Your task to perform on an android device: open app "Upside-Cash back on gas & food" Image 0: 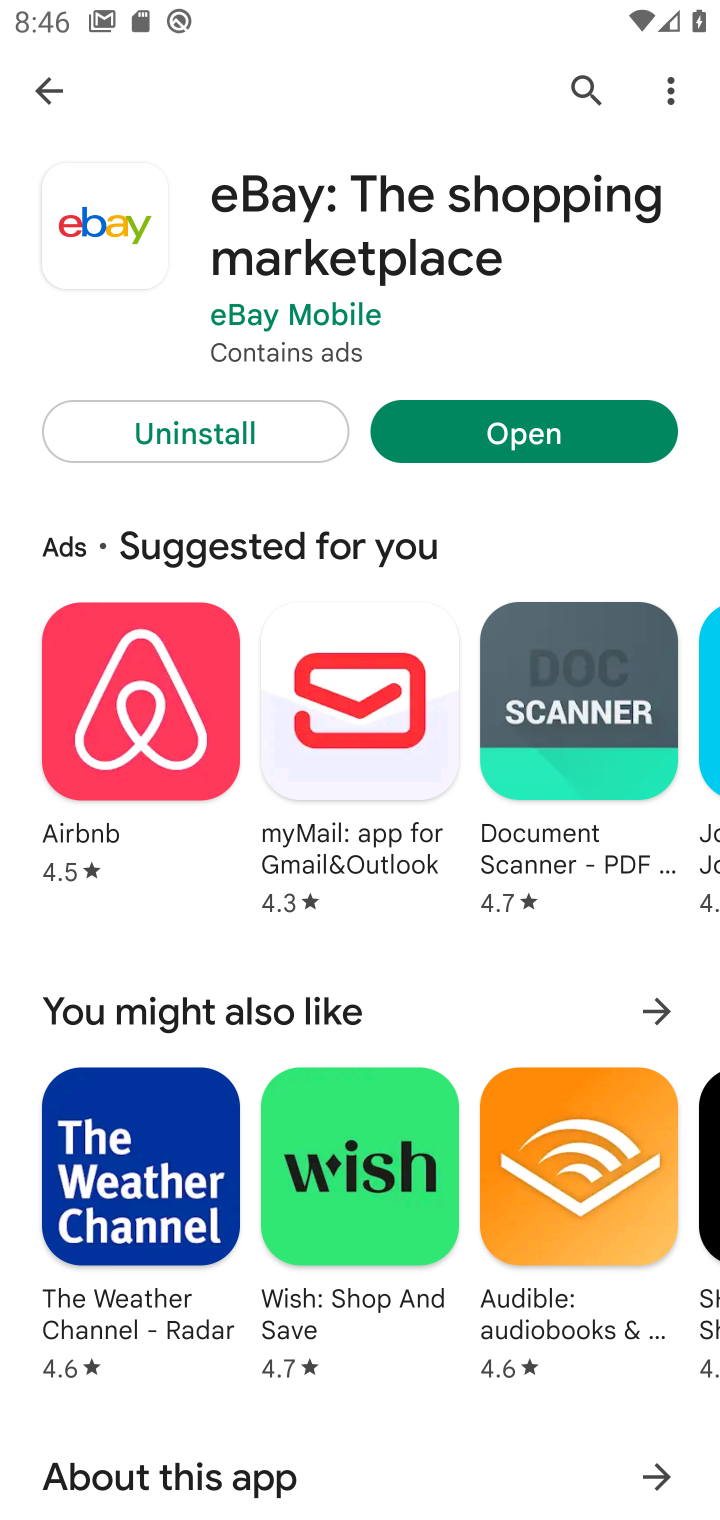
Step 0: press home button
Your task to perform on an android device: open app "Upside-Cash back on gas & food" Image 1: 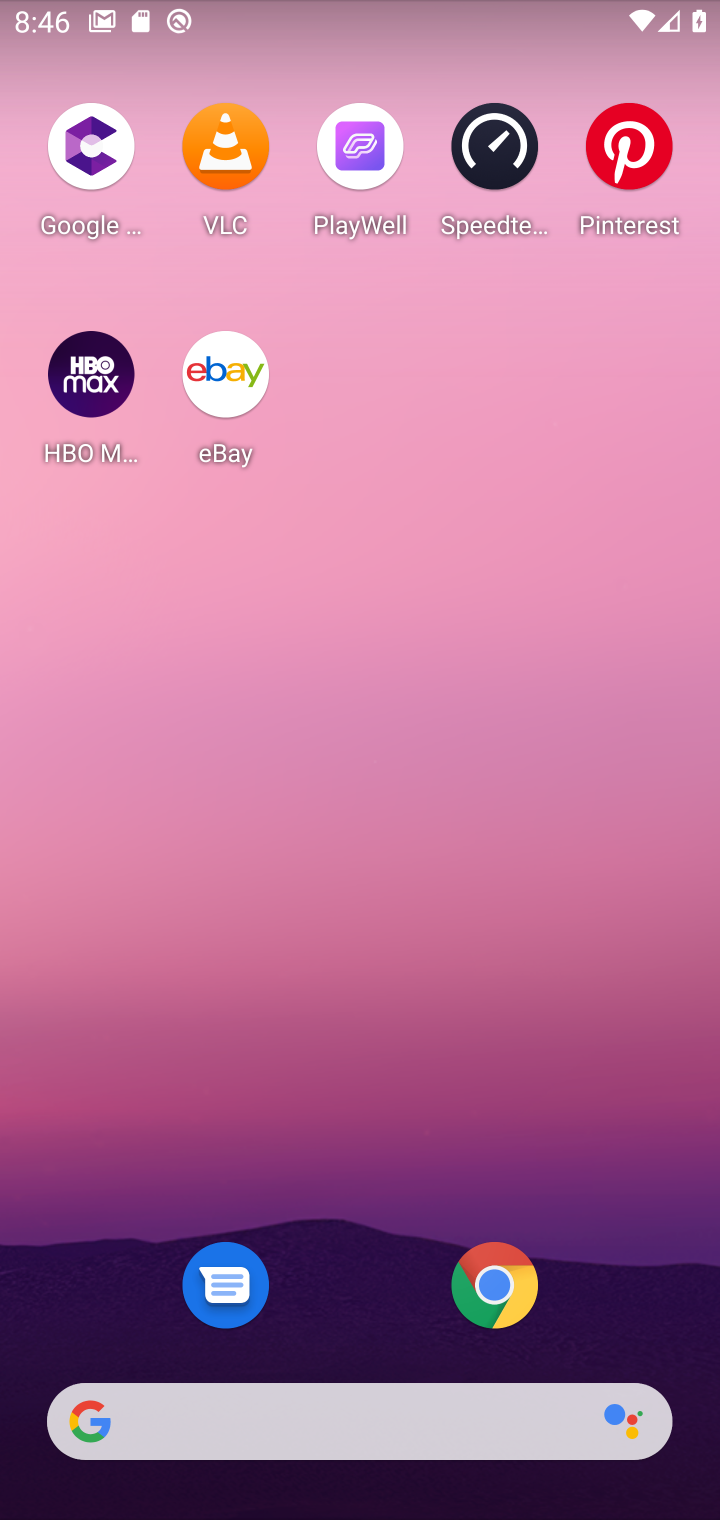
Step 1: drag from (634, 1305) to (563, 294)
Your task to perform on an android device: open app "Upside-Cash back on gas & food" Image 2: 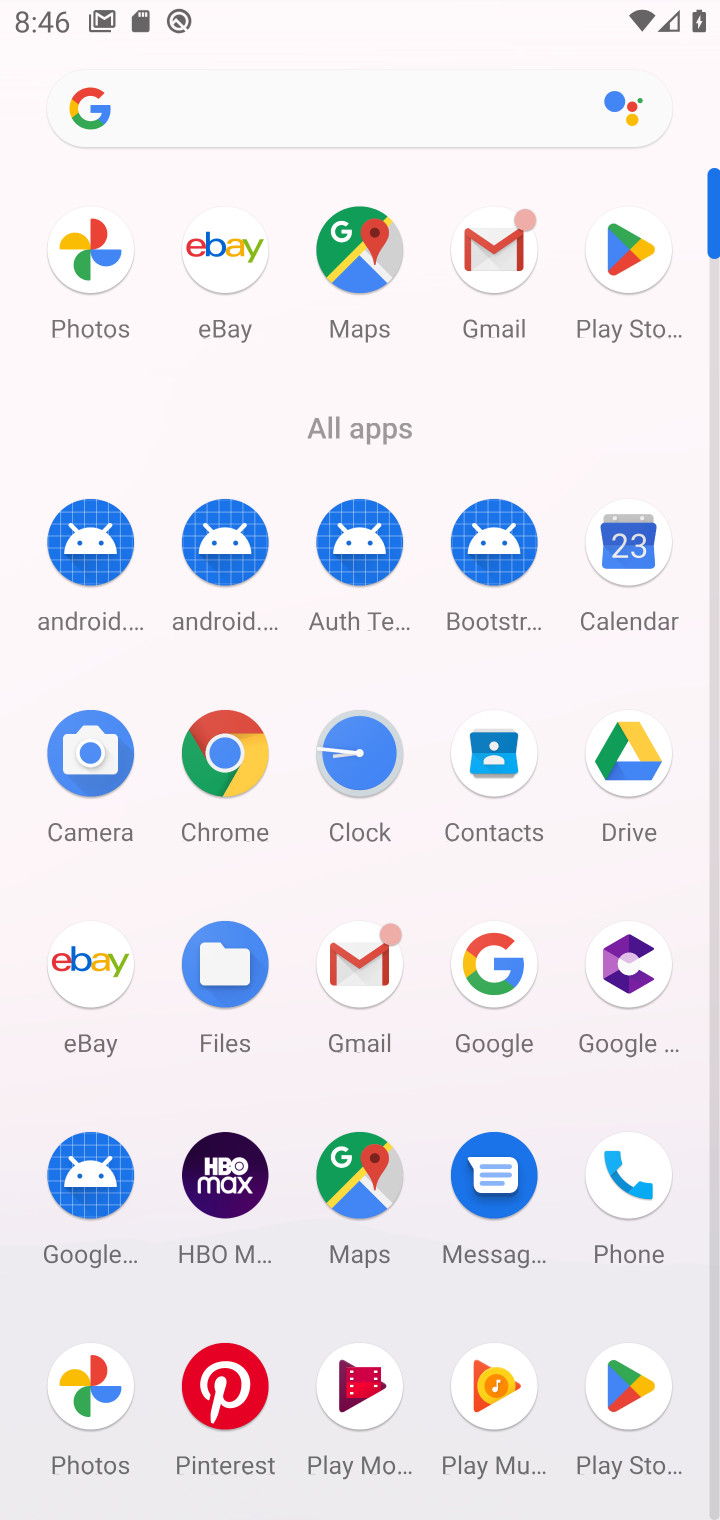
Step 2: click (634, 1391)
Your task to perform on an android device: open app "Upside-Cash back on gas & food" Image 3: 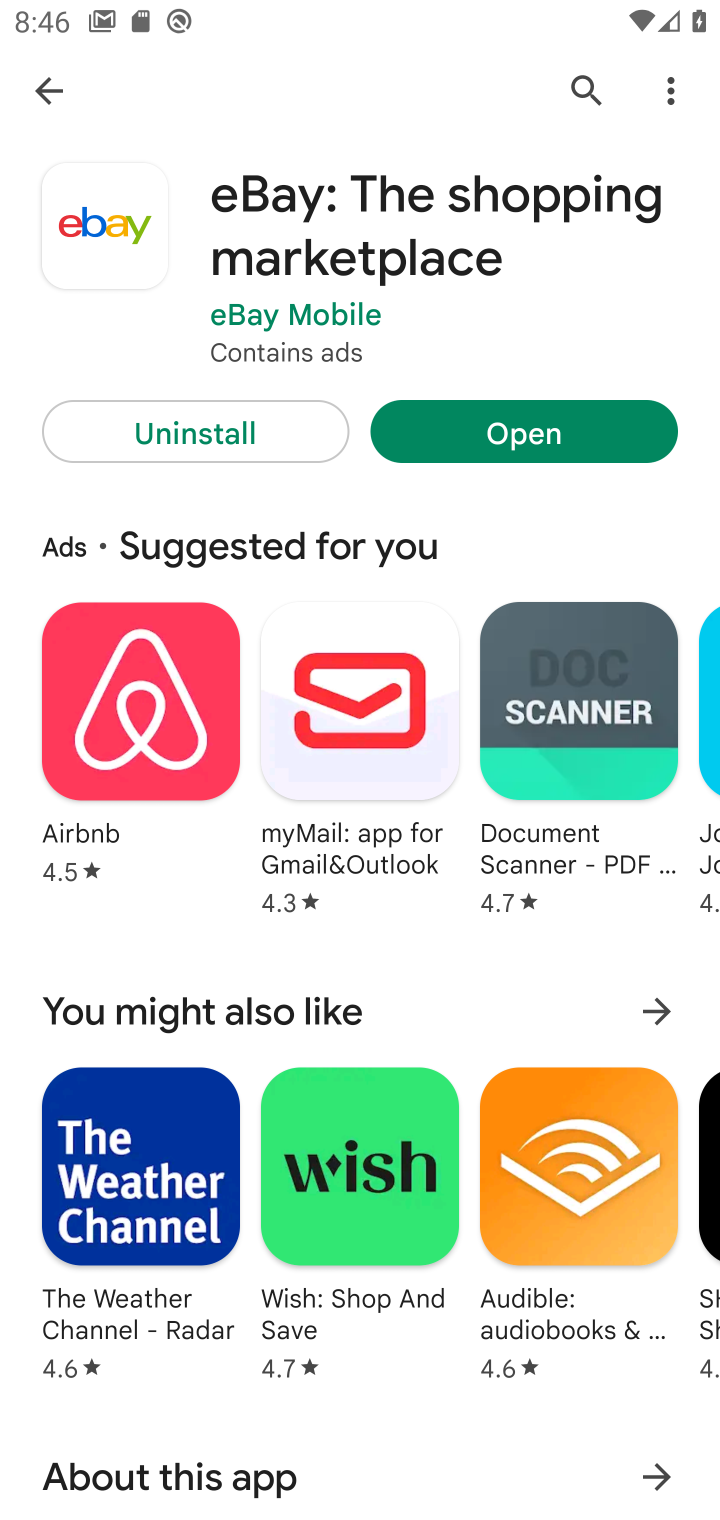
Step 3: click (585, 85)
Your task to perform on an android device: open app "Upside-Cash back on gas & food" Image 4: 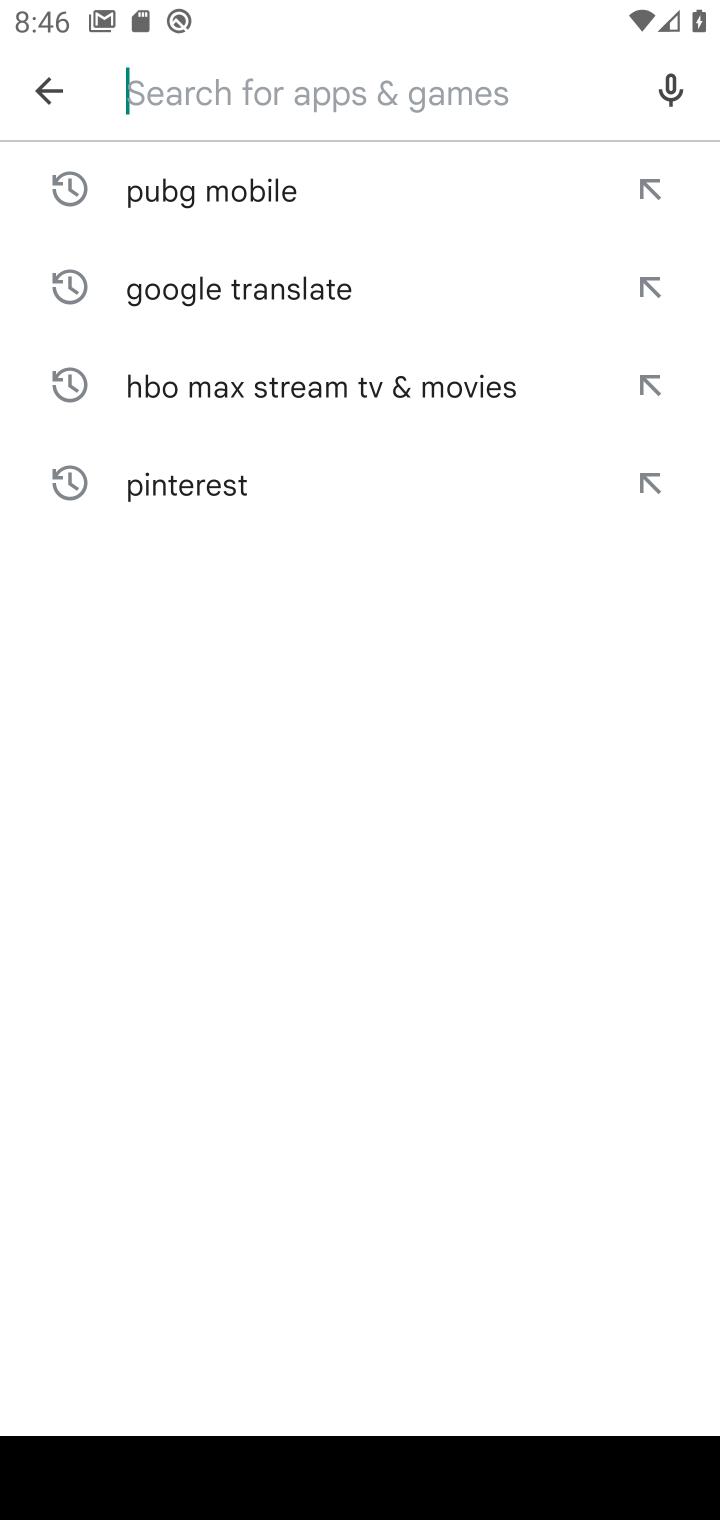
Step 4: type "Upside-Cash back on gas & food"
Your task to perform on an android device: open app "Upside-Cash back on gas & food" Image 5: 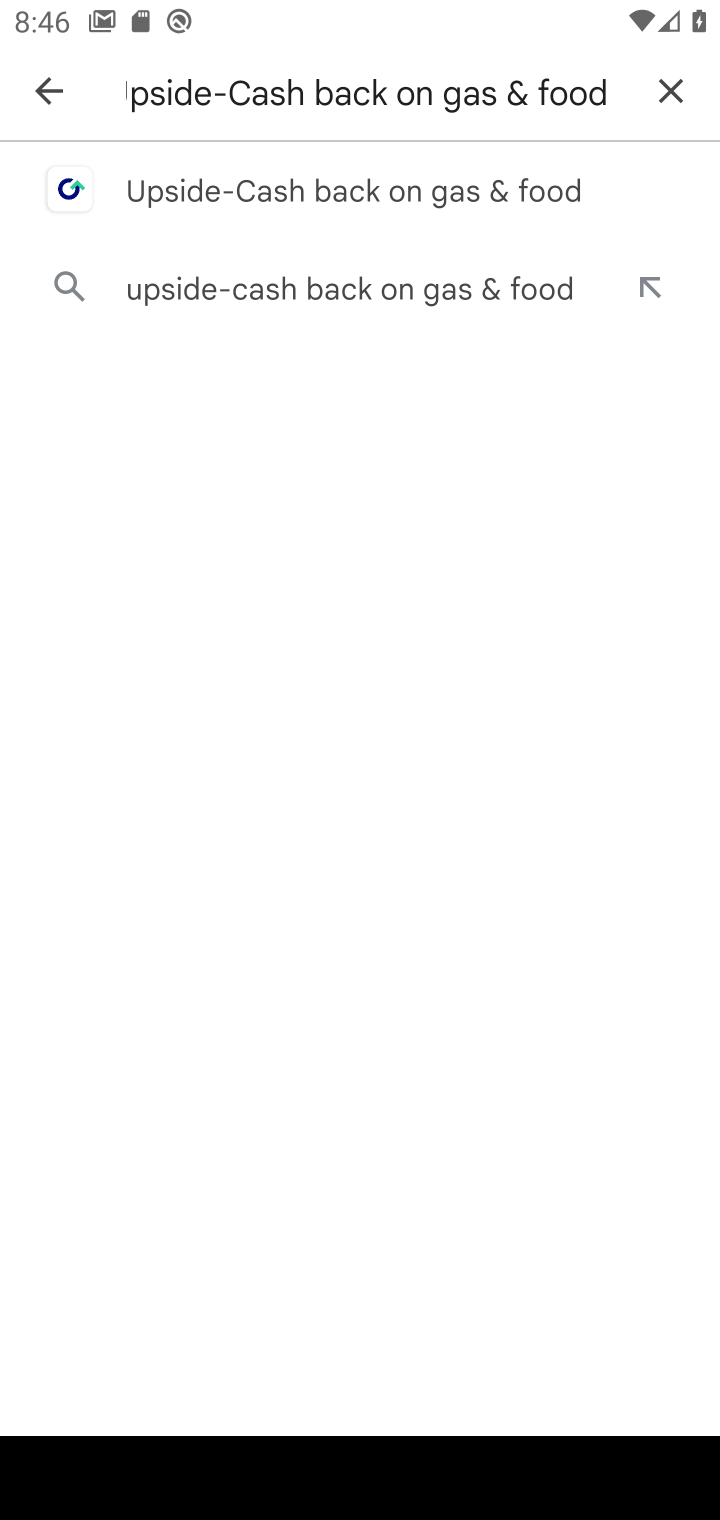
Step 5: click (305, 184)
Your task to perform on an android device: open app "Upside-Cash back on gas & food" Image 6: 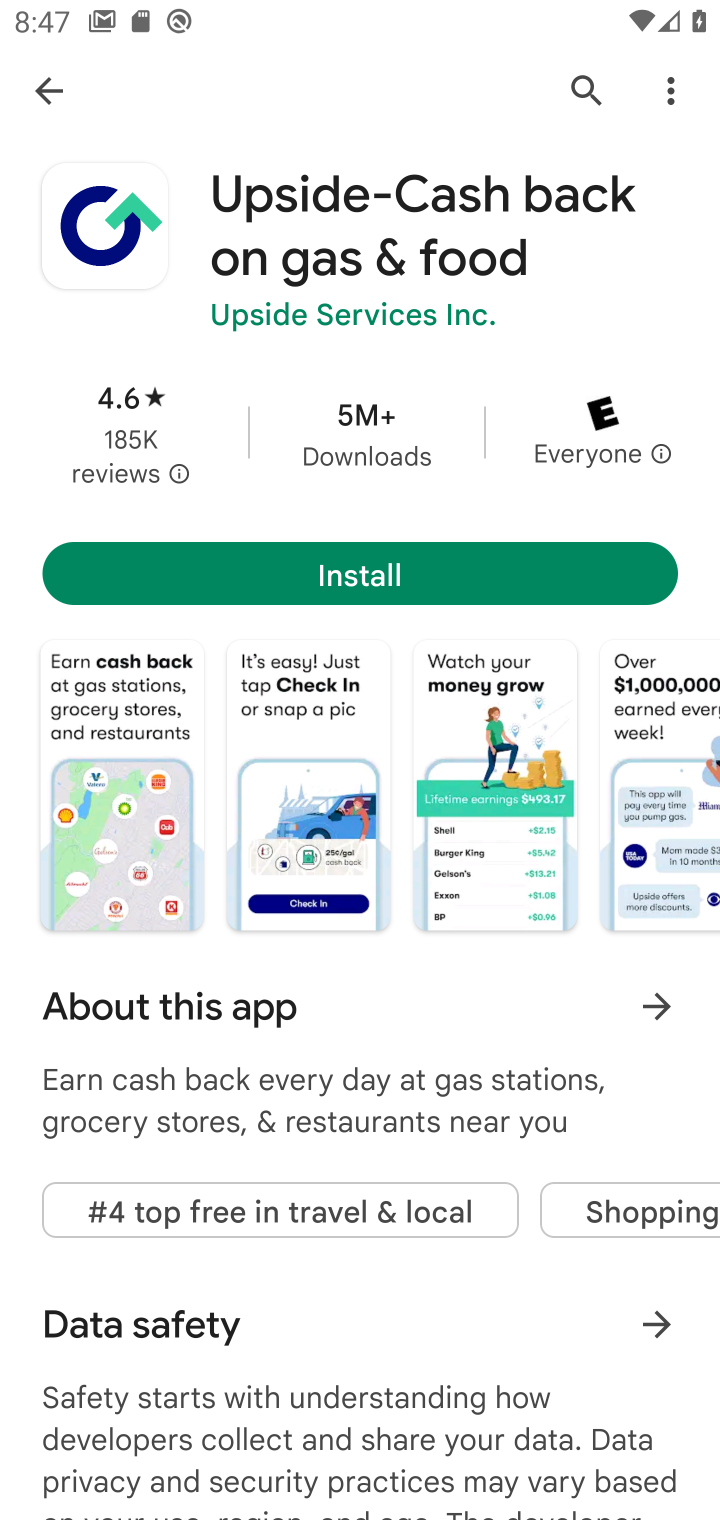
Step 6: task complete